Your task to perform on an android device: change alarm snooze length Image 0: 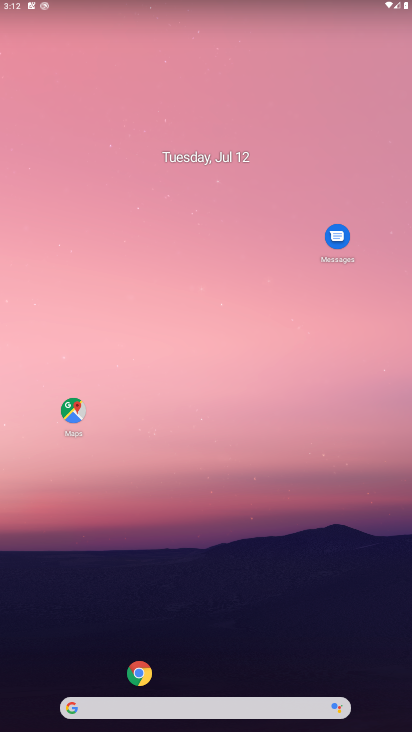
Step 0: drag from (53, 691) to (196, 18)
Your task to perform on an android device: change alarm snooze length Image 1: 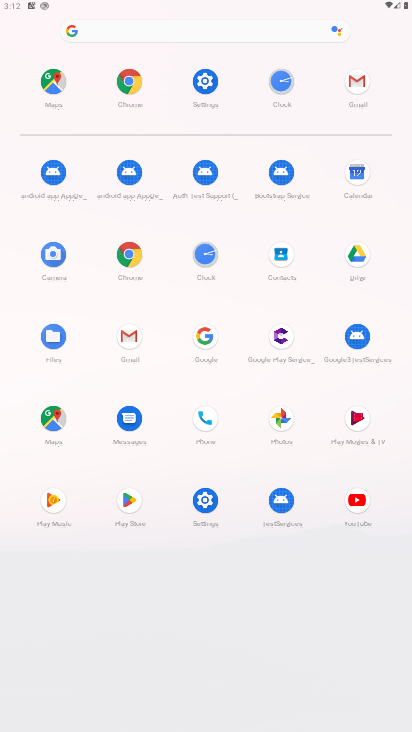
Step 1: click (206, 261)
Your task to perform on an android device: change alarm snooze length Image 2: 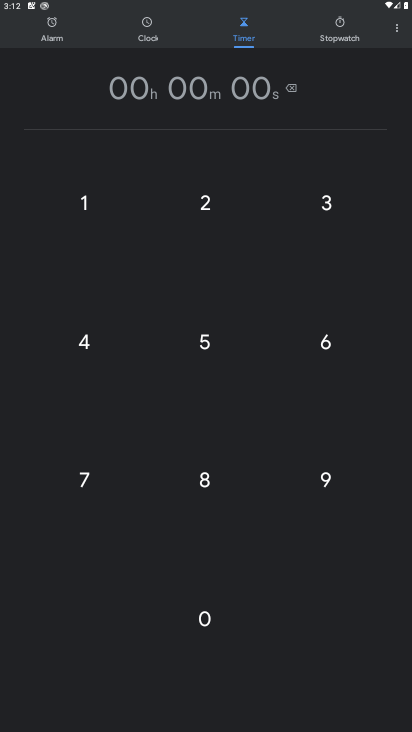
Step 2: click (47, 37)
Your task to perform on an android device: change alarm snooze length Image 3: 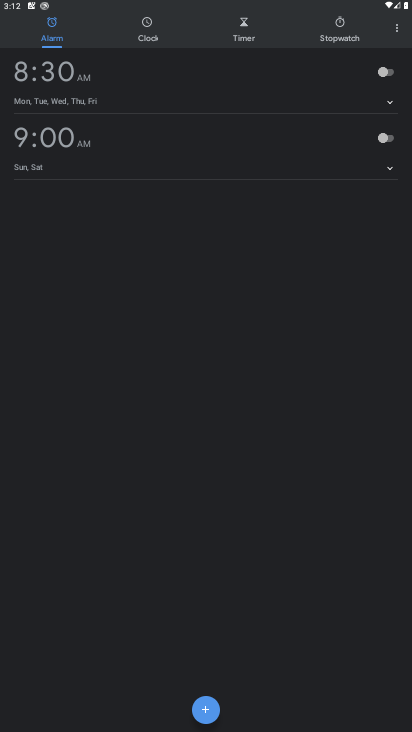
Step 3: click (393, 26)
Your task to perform on an android device: change alarm snooze length Image 4: 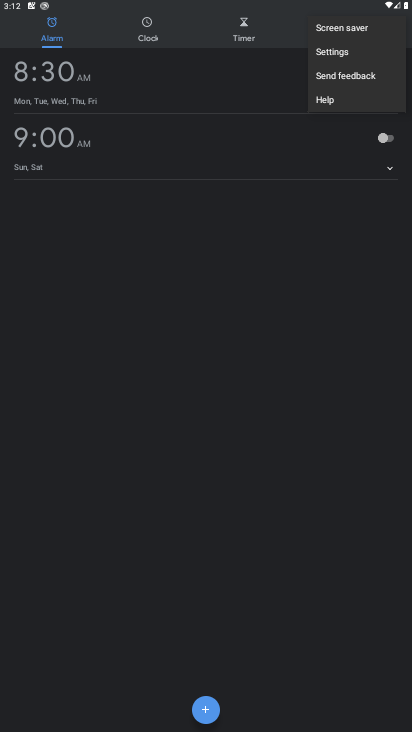
Step 4: click (326, 52)
Your task to perform on an android device: change alarm snooze length Image 5: 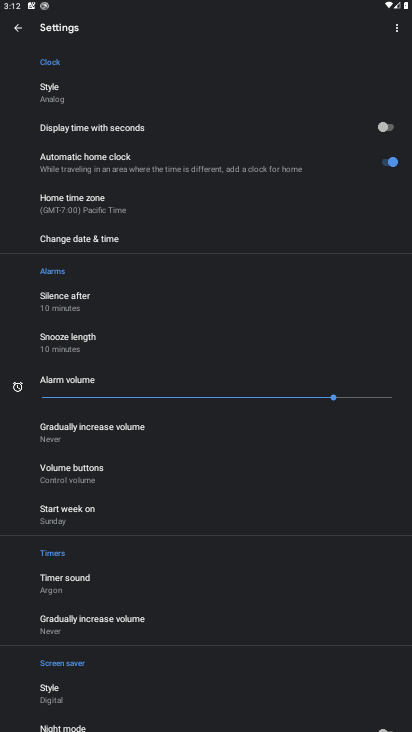
Step 5: click (50, 344)
Your task to perform on an android device: change alarm snooze length Image 6: 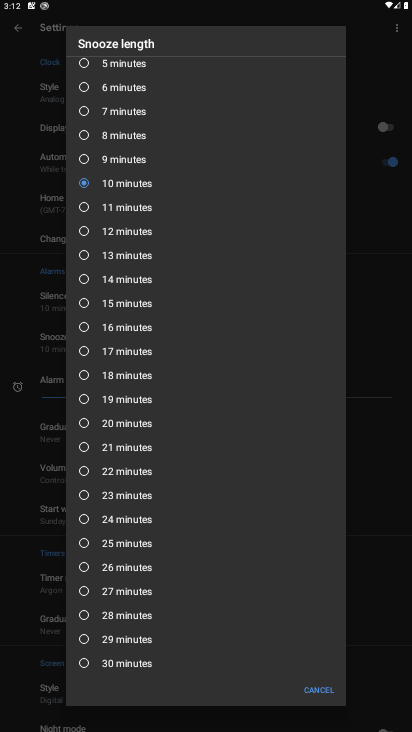
Step 6: click (82, 231)
Your task to perform on an android device: change alarm snooze length Image 7: 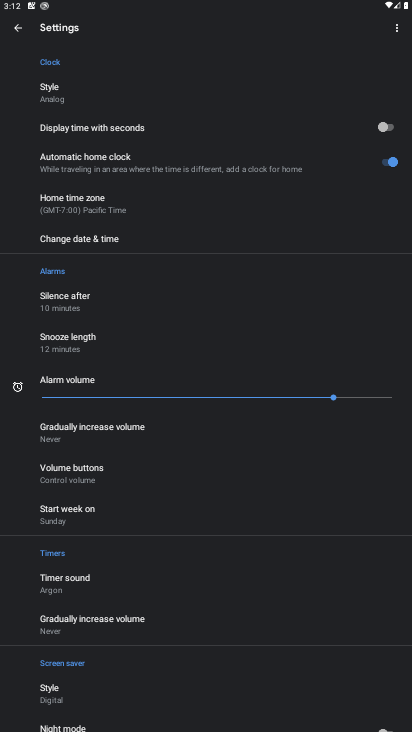
Step 7: task complete